Your task to perform on an android device: Open calendar and show me the first week of next month Image 0: 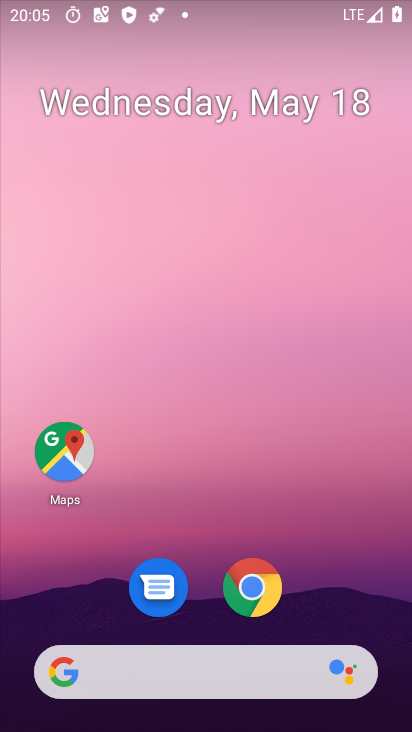
Step 0: click (149, 104)
Your task to perform on an android device: Open calendar and show me the first week of next month Image 1: 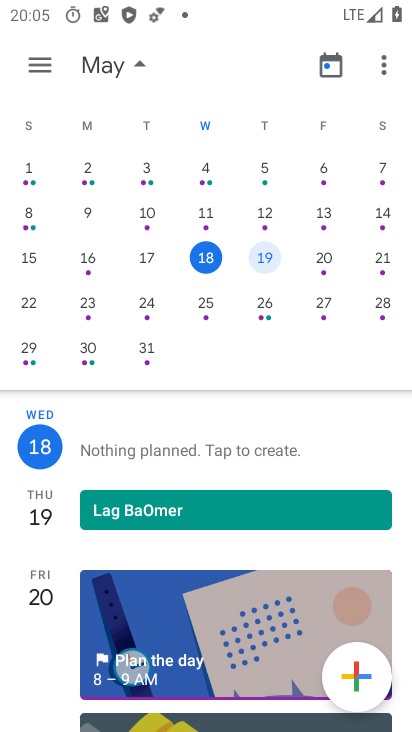
Step 1: drag from (315, 370) to (34, 336)
Your task to perform on an android device: Open calendar and show me the first week of next month Image 2: 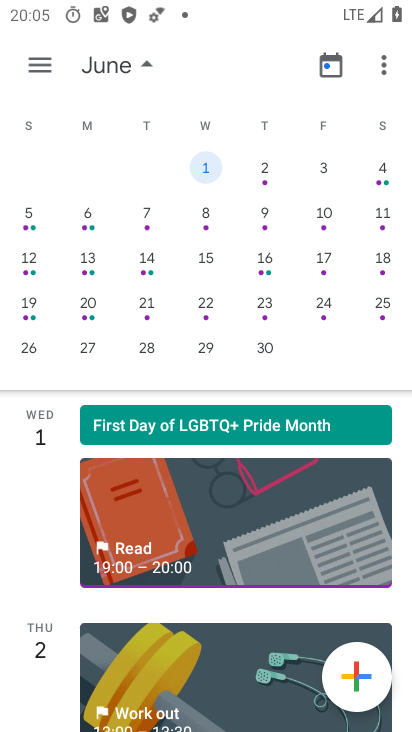
Step 2: click (269, 166)
Your task to perform on an android device: Open calendar and show me the first week of next month Image 3: 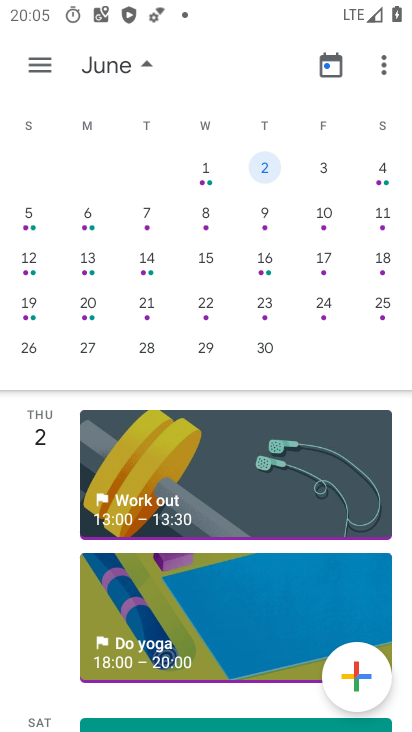
Step 3: task complete